Your task to perform on an android device: Open ESPN.com Image 0: 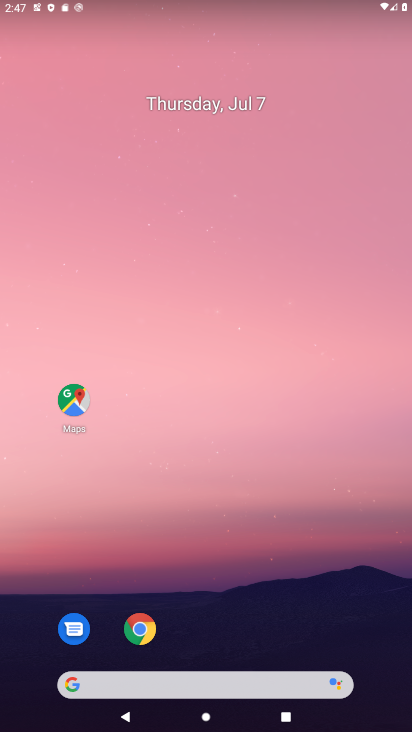
Step 0: click (128, 621)
Your task to perform on an android device: Open ESPN.com Image 1: 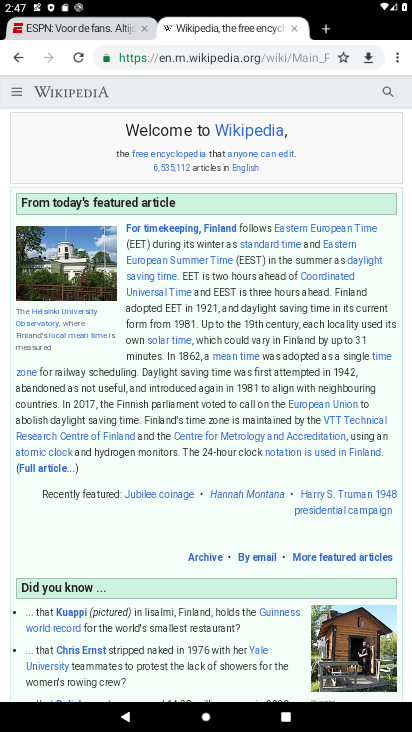
Step 1: click (325, 32)
Your task to perform on an android device: Open ESPN.com Image 2: 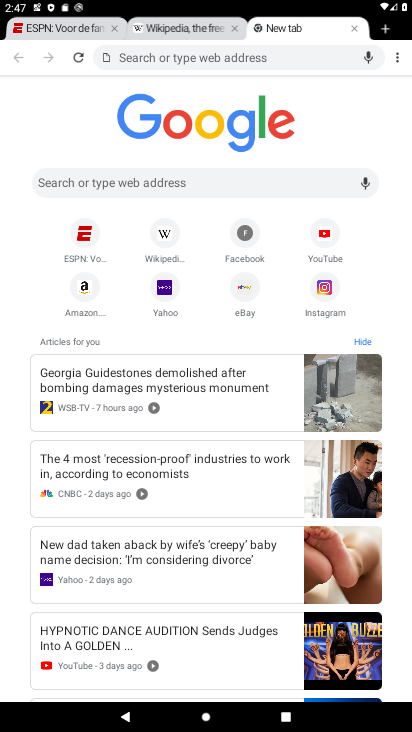
Step 2: click (82, 240)
Your task to perform on an android device: Open ESPN.com Image 3: 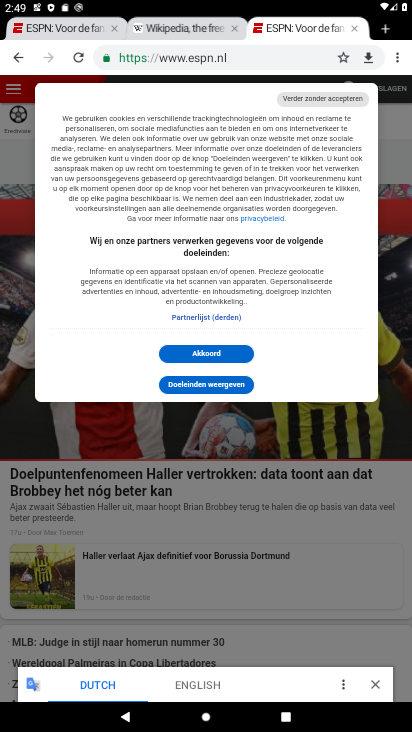
Step 3: task complete